Your task to perform on an android device: Go to notification settings Image 0: 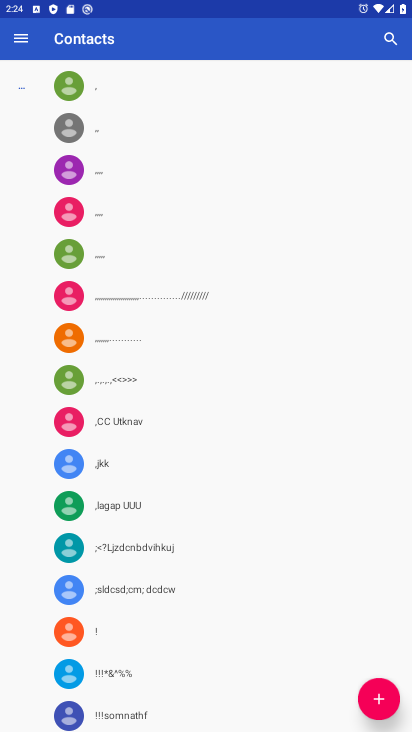
Step 0: press home button
Your task to perform on an android device: Go to notification settings Image 1: 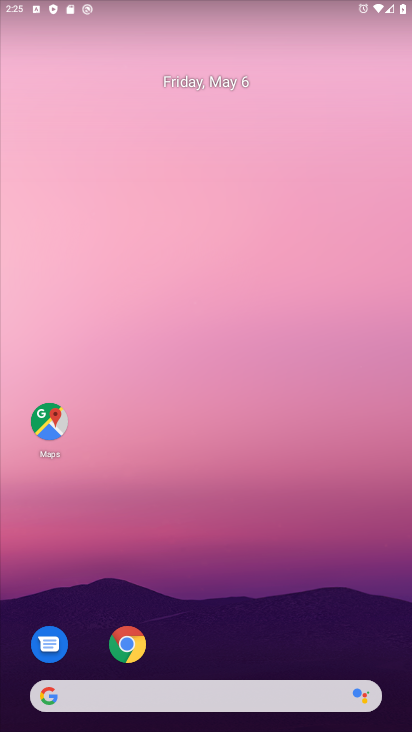
Step 1: drag from (323, 727) to (330, 87)
Your task to perform on an android device: Go to notification settings Image 2: 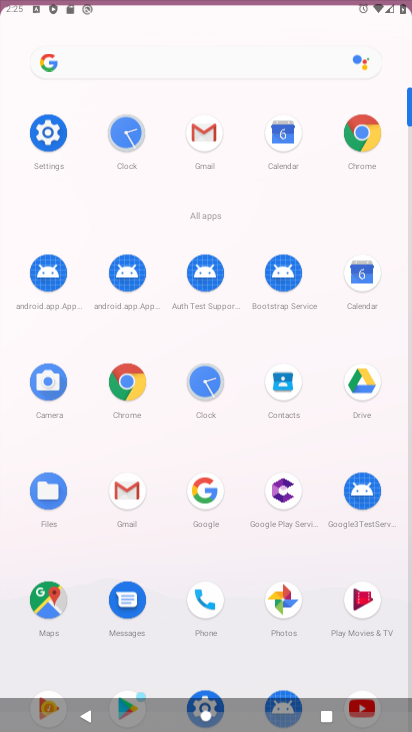
Step 2: click (222, 6)
Your task to perform on an android device: Go to notification settings Image 3: 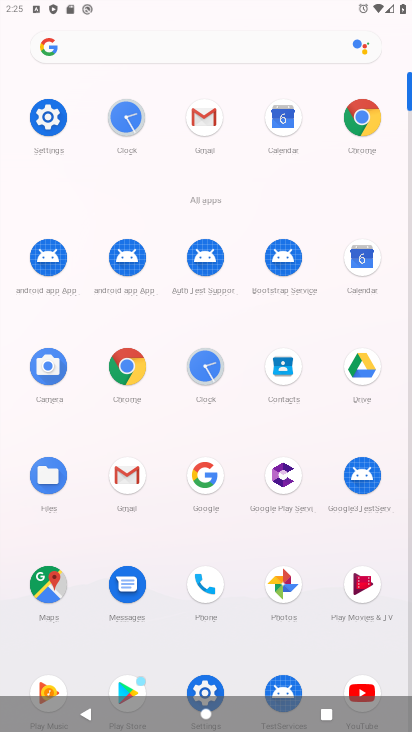
Step 3: click (51, 130)
Your task to perform on an android device: Go to notification settings Image 4: 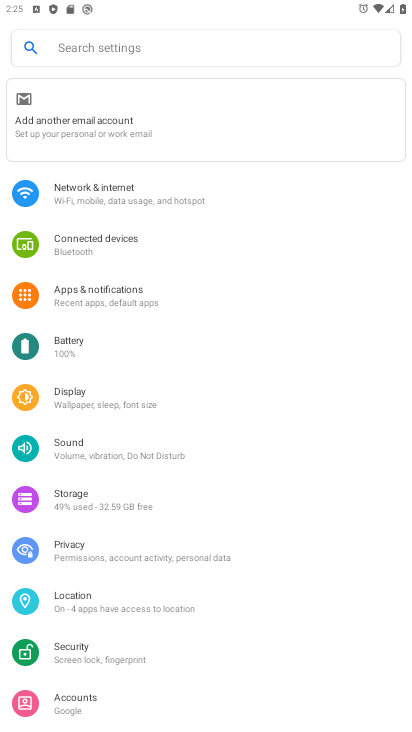
Step 4: click (123, 287)
Your task to perform on an android device: Go to notification settings Image 5: 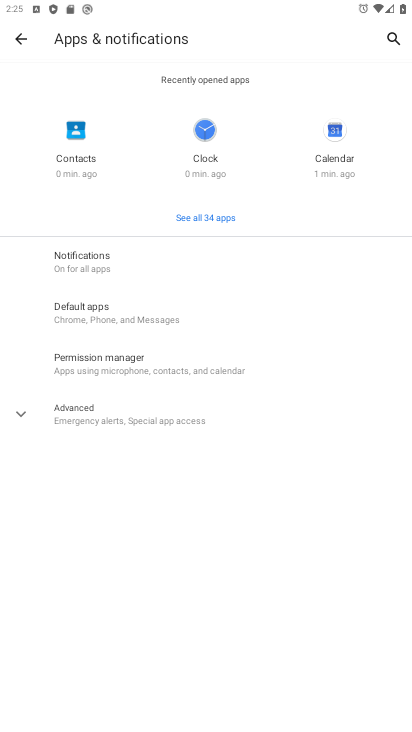
Step 5: task complete